Your task to perform on an android device: check storage Image 0: 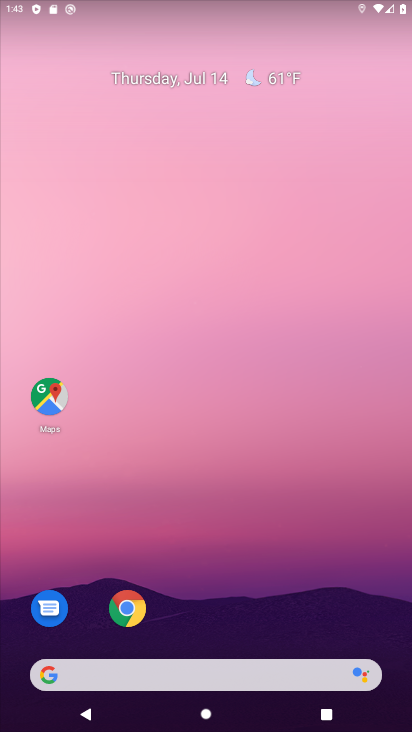
Step 0: drag from (222, 681) to (329, 164)
Your task to perform on an android device: check storage Image 1: 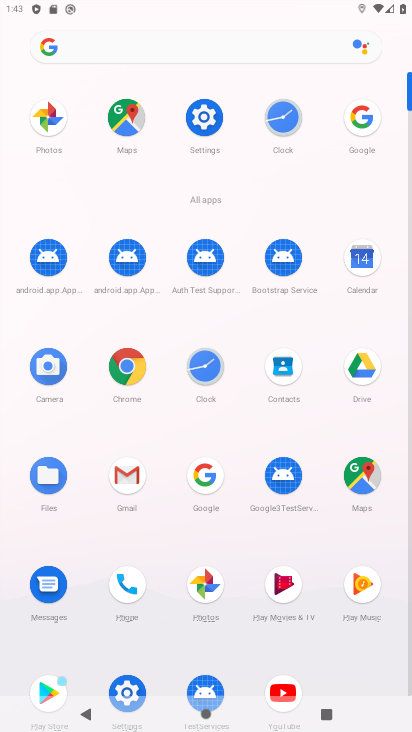
Step 1: click (205, 117)
Your task to perform on an android device: check storage Image 2: 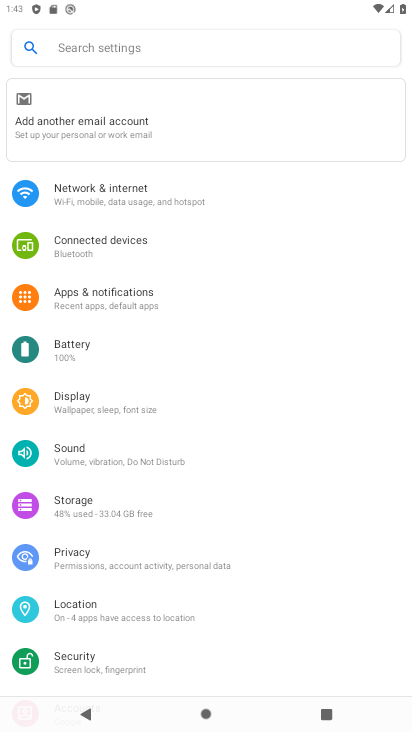
Step 2: click (75, 502)
Your task to perform on an android device: check storage Image 3: 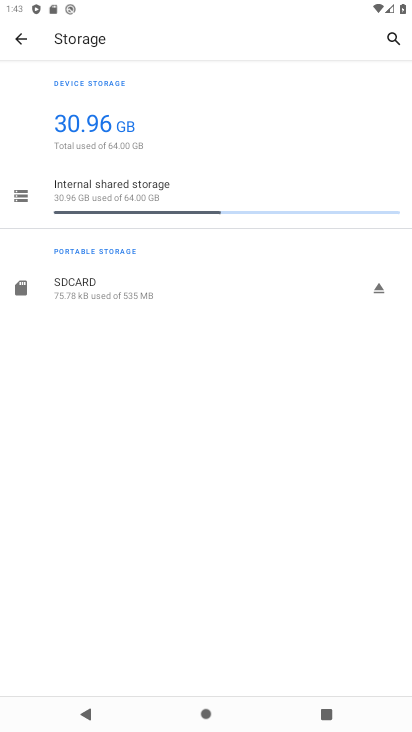
Step 3: task complete